Your task to perform on an android device: Add "razer blackwidow" to the cart on walmart.com Image 0: 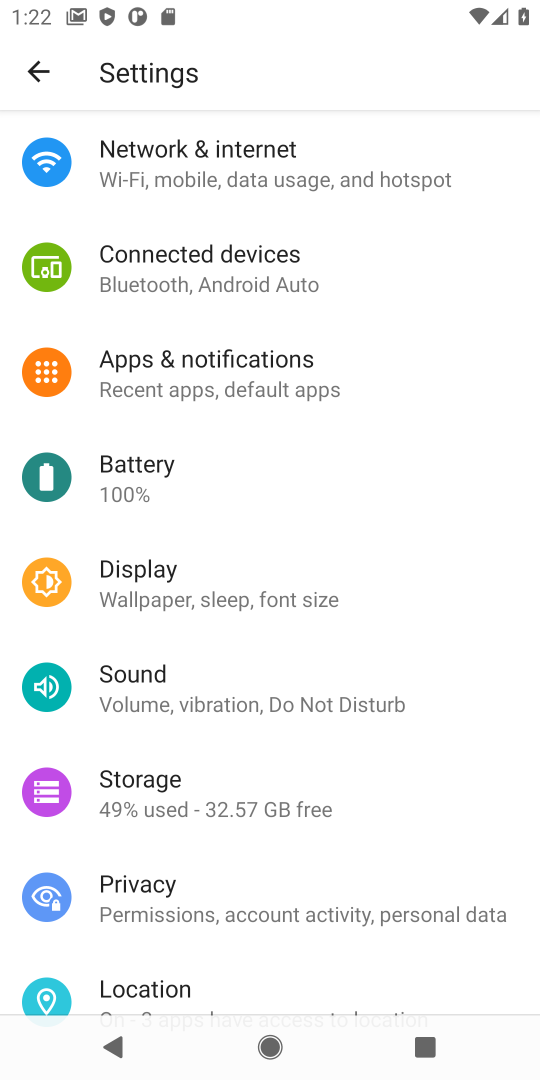
Step 0: press home button
Your task to perform on an android device: Add "razer blackwidow" to the cart on walmart.com Image 1: 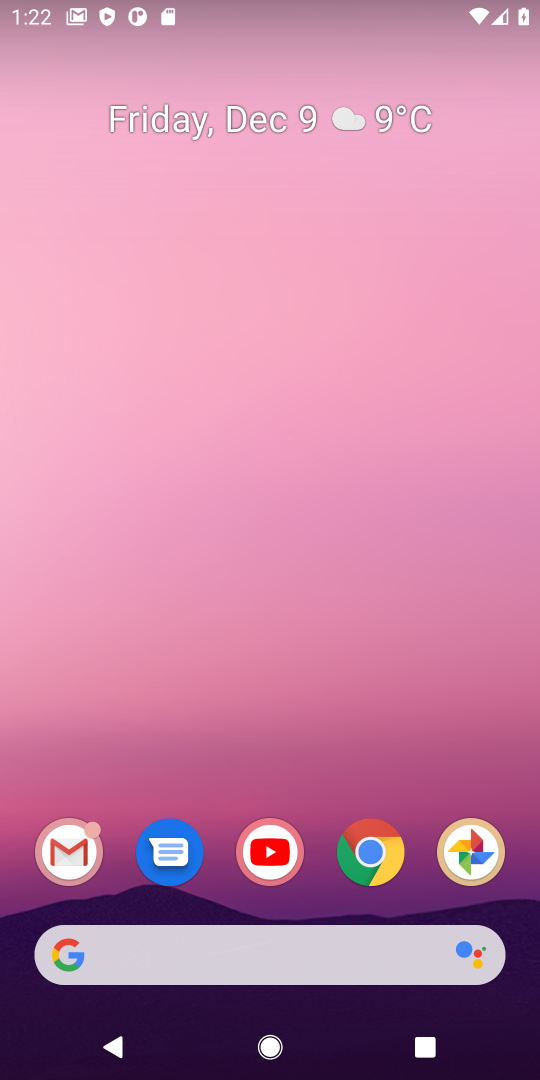
Step 1: click (365, 865)
Your task to perform on an android device: Add "razer blackwidow" to the cart on walmart.com Image 2: 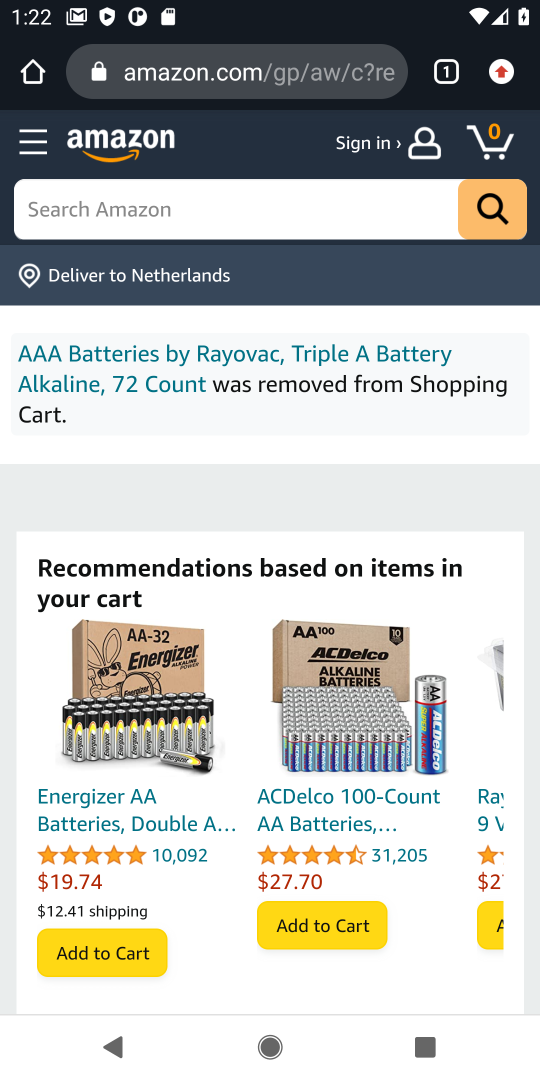
Step 2: click (177, 91)
Your task to perform on an android device: Add "razer blackwidow" to the cart on walmart.com Image 3: 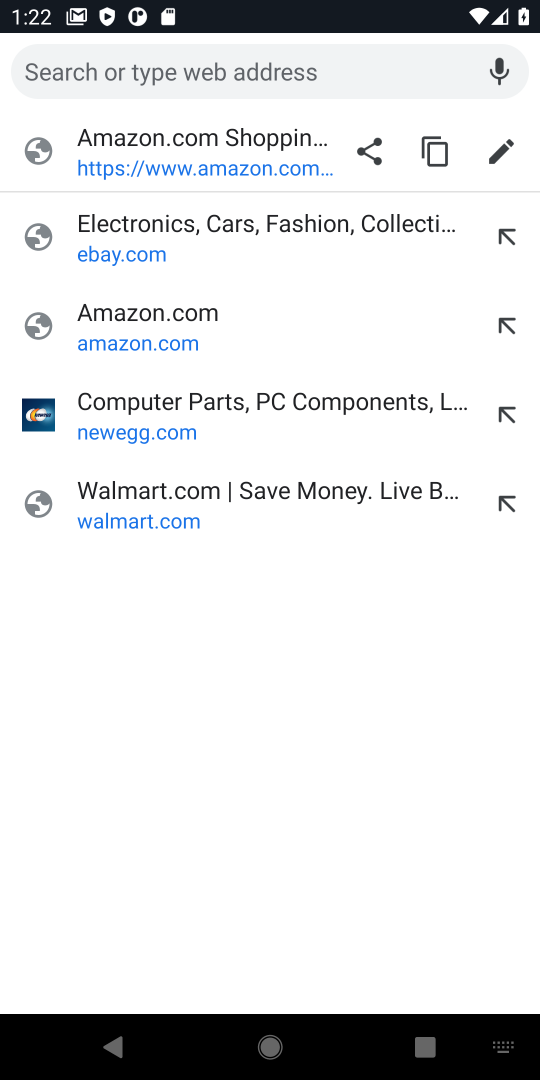
Step 3: type "walmart.com"
Your task to perform on an android device: Add "razer blackwidow" to the cart on walmart.com Image 4: 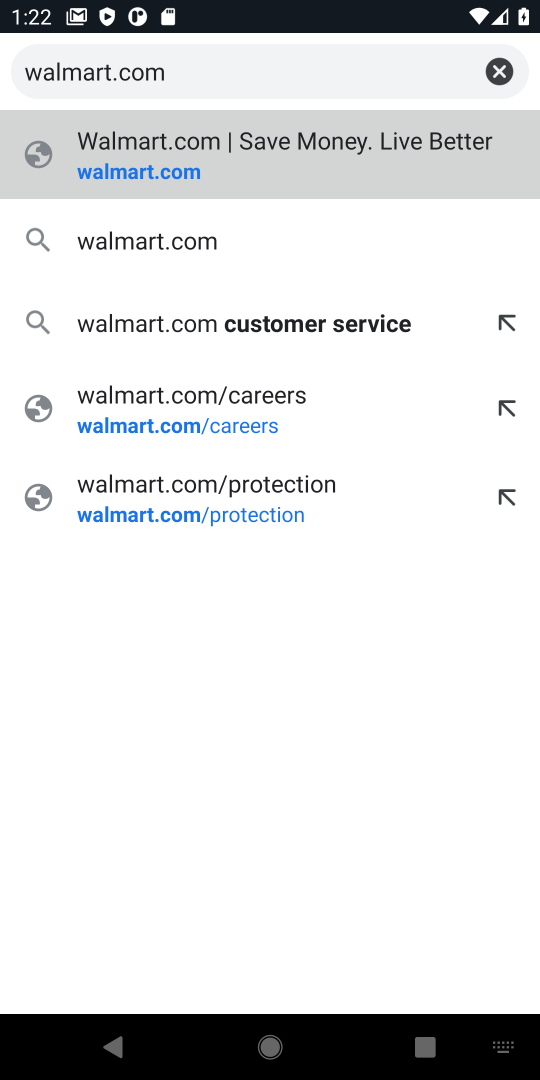
Step 4: press enter
Your task to perform on an android device: Add "razer blackwidow" to the cart on walmart.com Image 5: 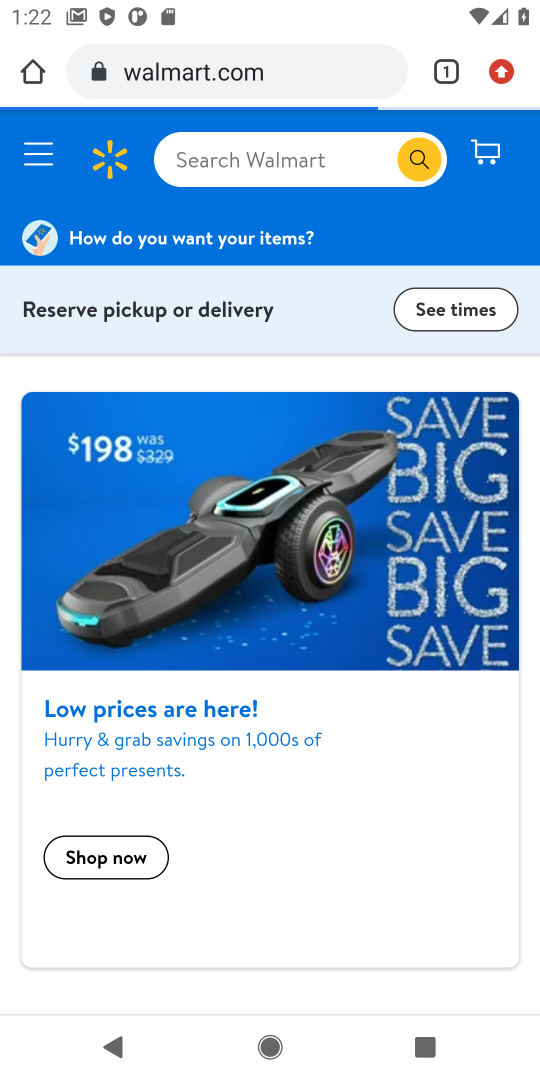
Step 5: click (195, 167)
Your task to perform on an android device: Add "razer blackwidow" to the cart on walmart.com Image 6: 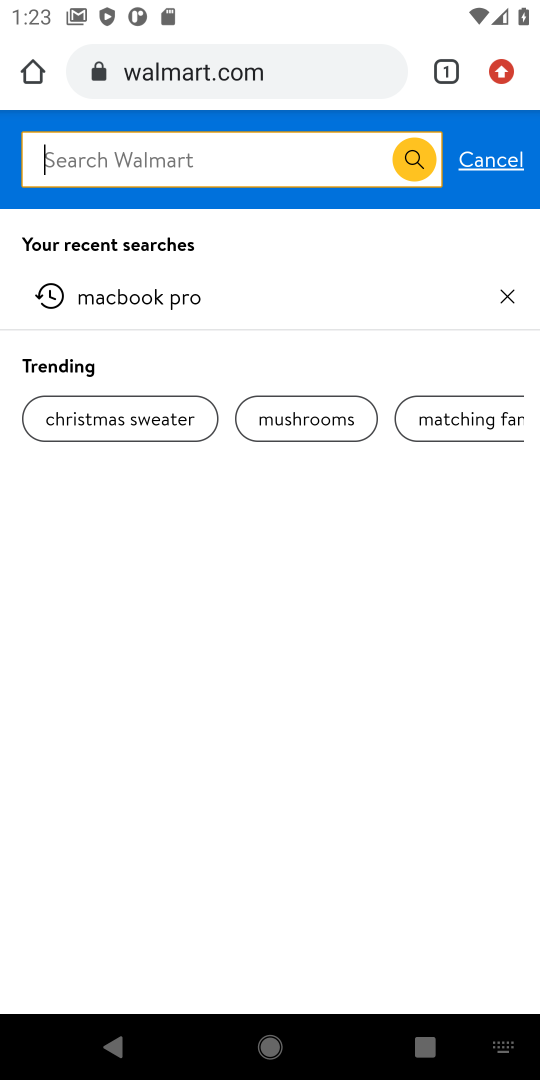
Step 6: click (150, 158)
Your task to perform on an android device: Add "razer blackwidow" to the cart on walmart.com Image 7: 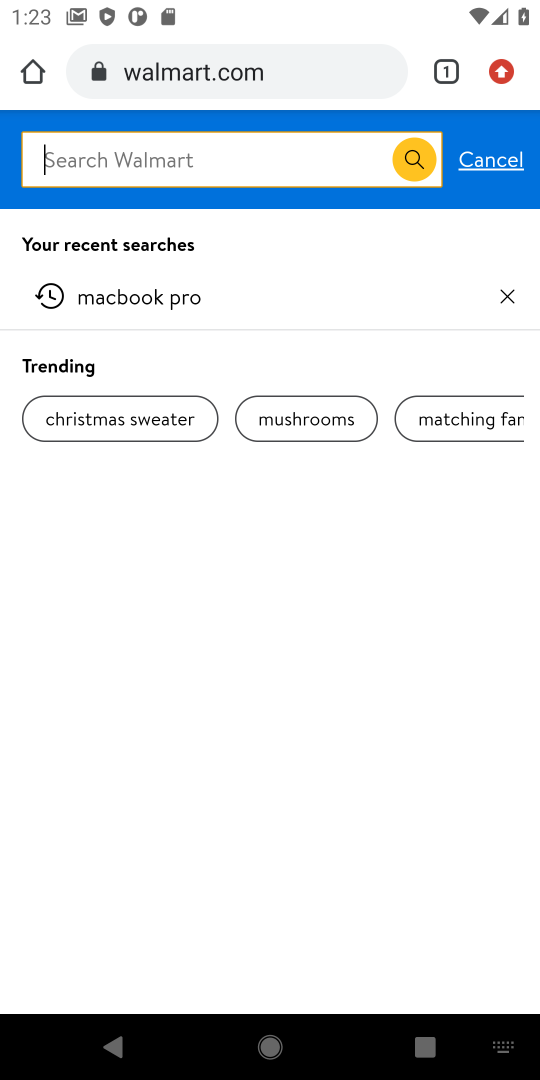
Step 7: type "razer blackwidow"
Your task to perform on an android device: Add "razer blackwidow" to the cart on walmart.com Image 8: 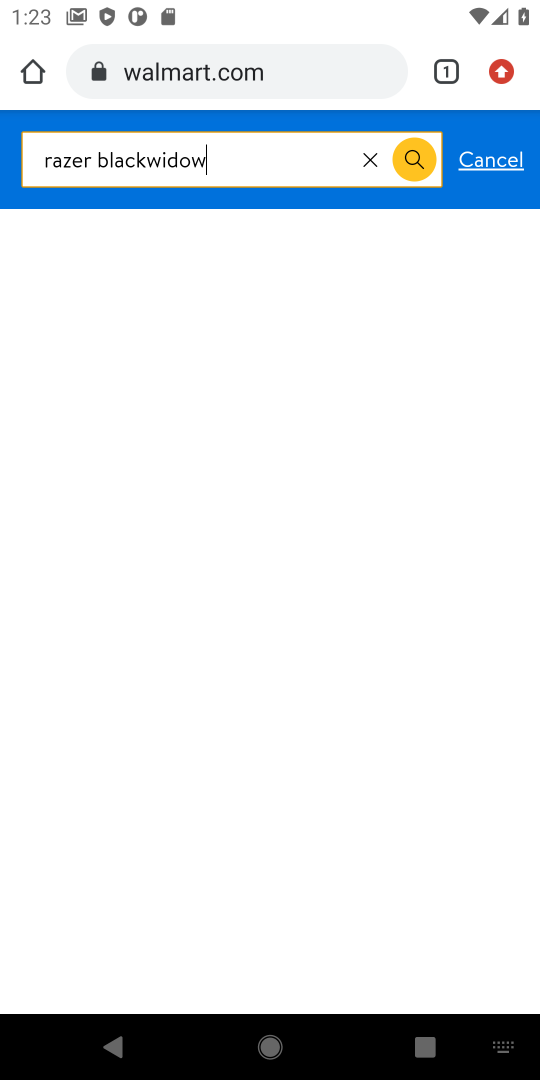
Step 8: press enter
Your task to perform on an android device: Add "razer blackwidow" to the cart on walmart.com Image 9: 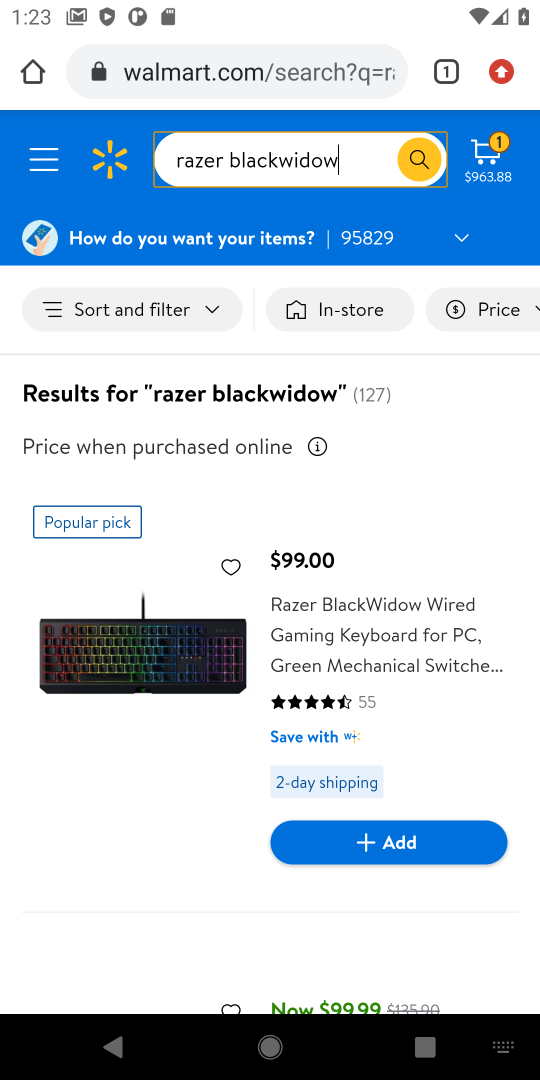
Step 9: click (368, 852)
Your task to perform on an android device: Add "razer blackwidow" to the cart on walmart.com Image 10: 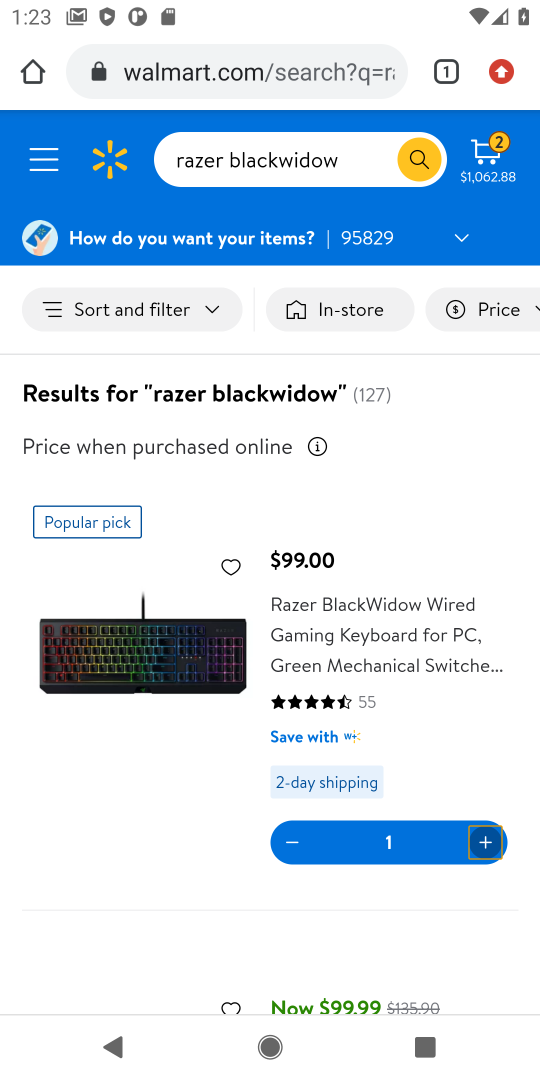
Step 10: task complete